Your task to perform on an android device: Go to network settings Image 0: 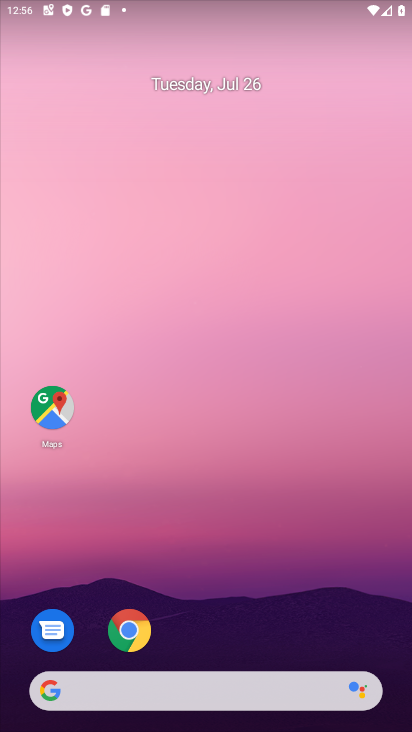
Step 0: drag from (198, 206) to (309, 24)
Your task to perform on an android device: Go to network settings Image 1: 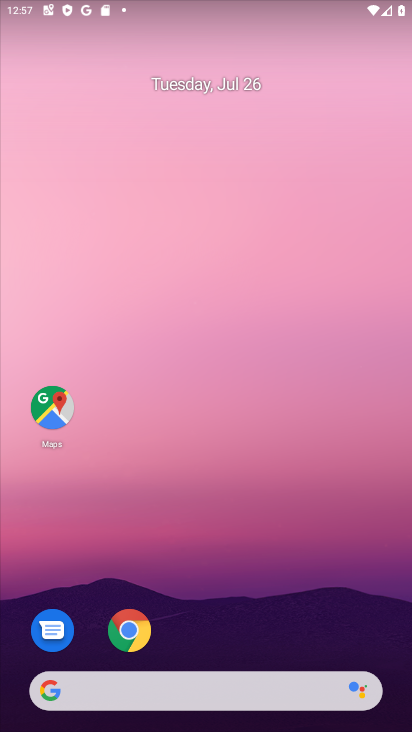
Step 1: drag from (260, 203) to (280, 98)
Your task to perform on an android device: Go to network settings Image 2: 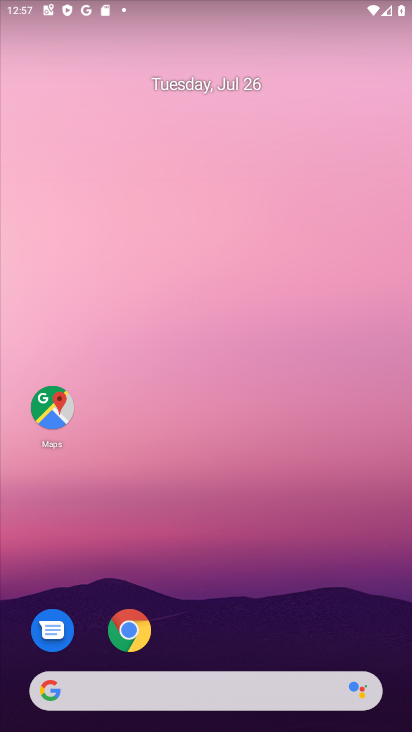
Step 2: drag from (185, 621) to (228, 7)
Your task to perform on an android device: Go to network settings Image 3: 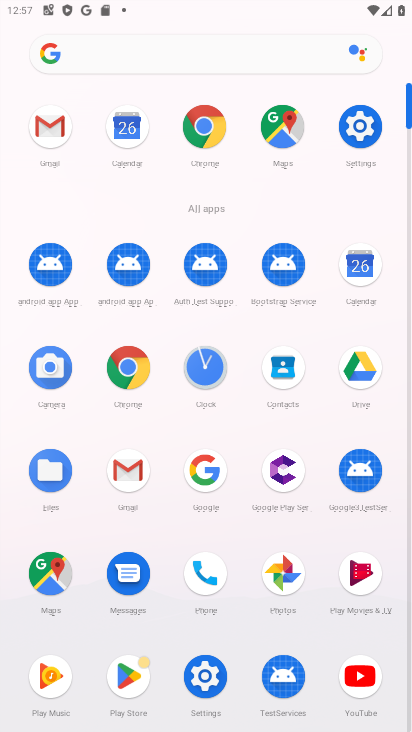
Step 3: click (205, 679)
Your task to perform on an android device: Go to network settings Image 4: 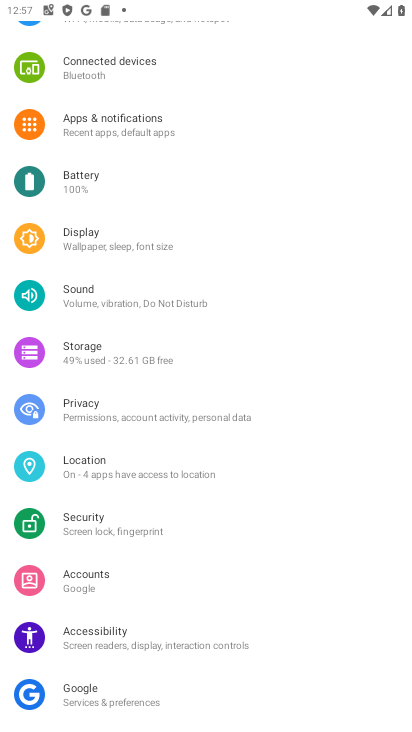
Step 4: drag from (122, 210) to (108, 449)
Your task to perform on an android device: Go to network settings Image 5: 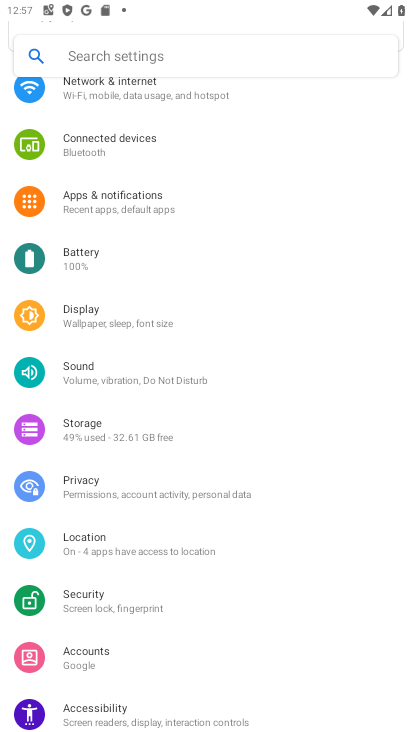
Step 5: click (149, 93)
Your task to perform on an android device: Go to network settings Image 6: 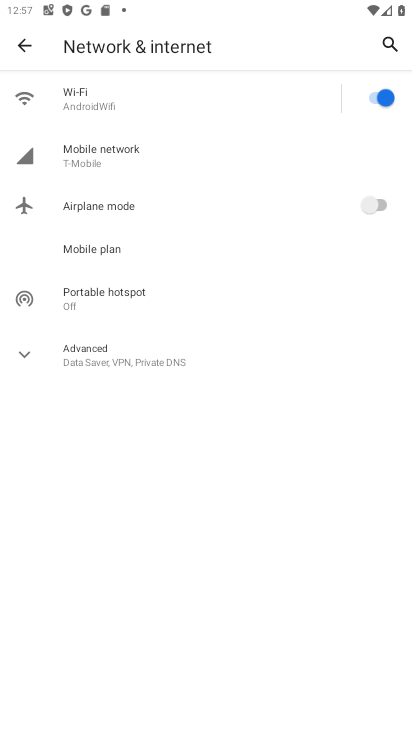
Step 6: click (121, 107)
Your task to perform on an android device: Go to network settings Image 7: 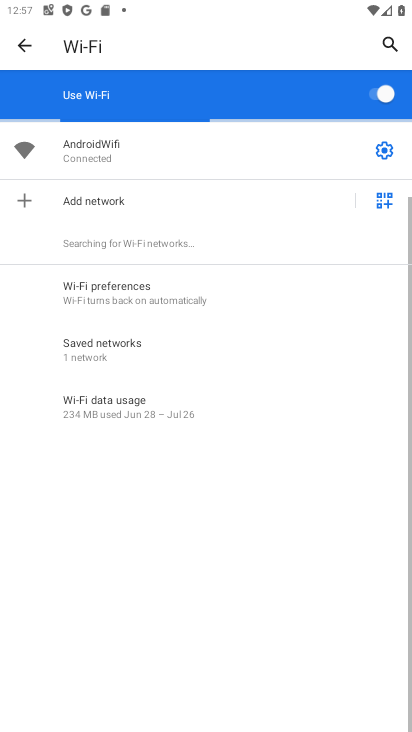
Step 7: task complete